Your task to perform on an android device: turn pop-ups on in chrome Image 0: 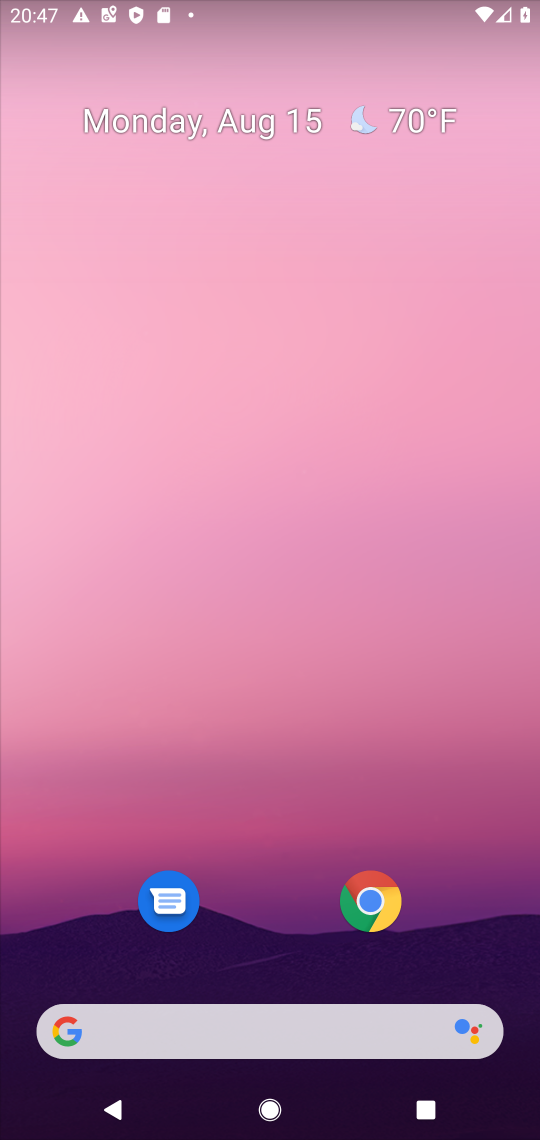
Step 0: drag from (295, 908) to (482, 78)
Your task to perform on an android device: turn pop-ups on in chrome Image 1: 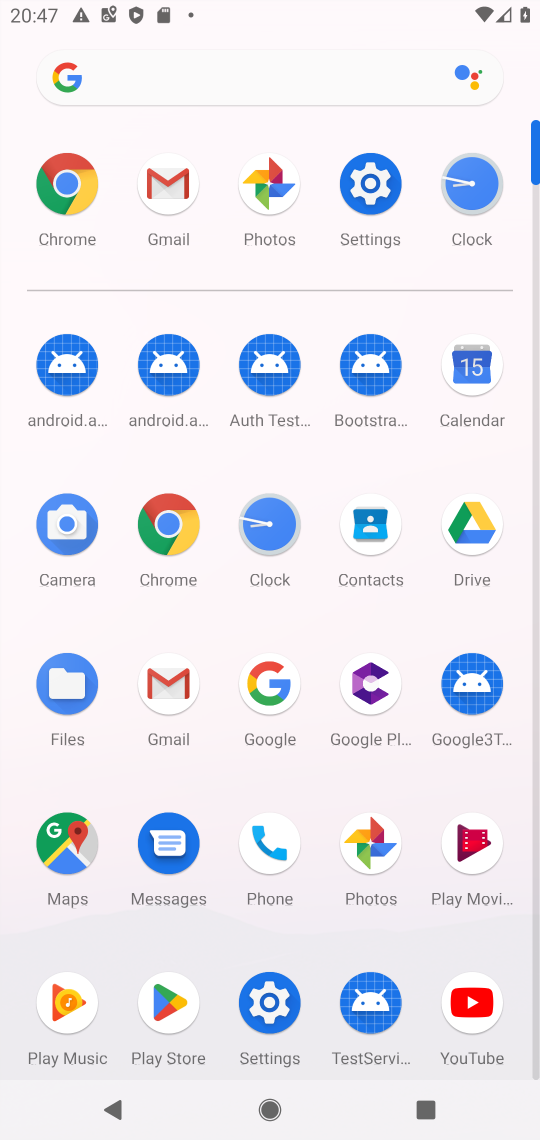
Step 1: click (173, 545)
Your task to perform on an android device: turn pop-ups on in chrome Image 2: 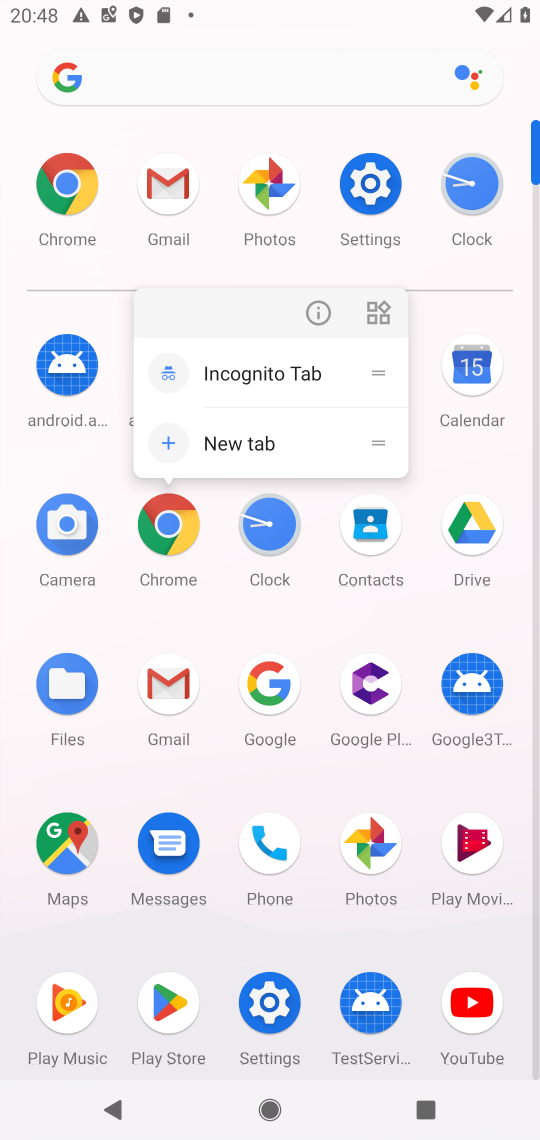
Step 2: click (162, 523)
Your task to perform on an android device: turn pop-ups on in chrome Image 3: 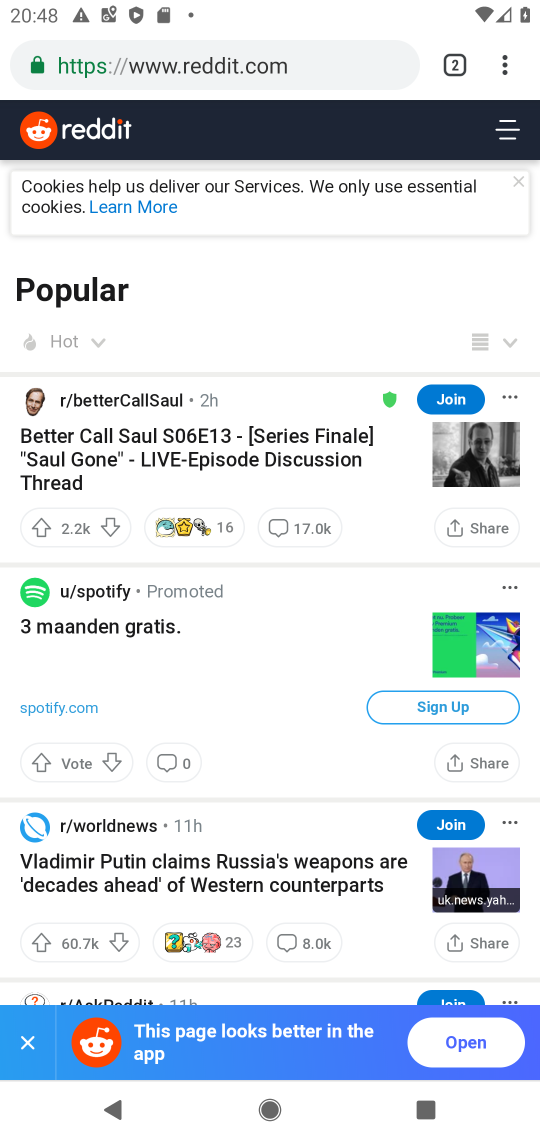
Step 3: click (507, 70)
Your task to perform on an android device: turn pop-ups on in chrome Image 4: 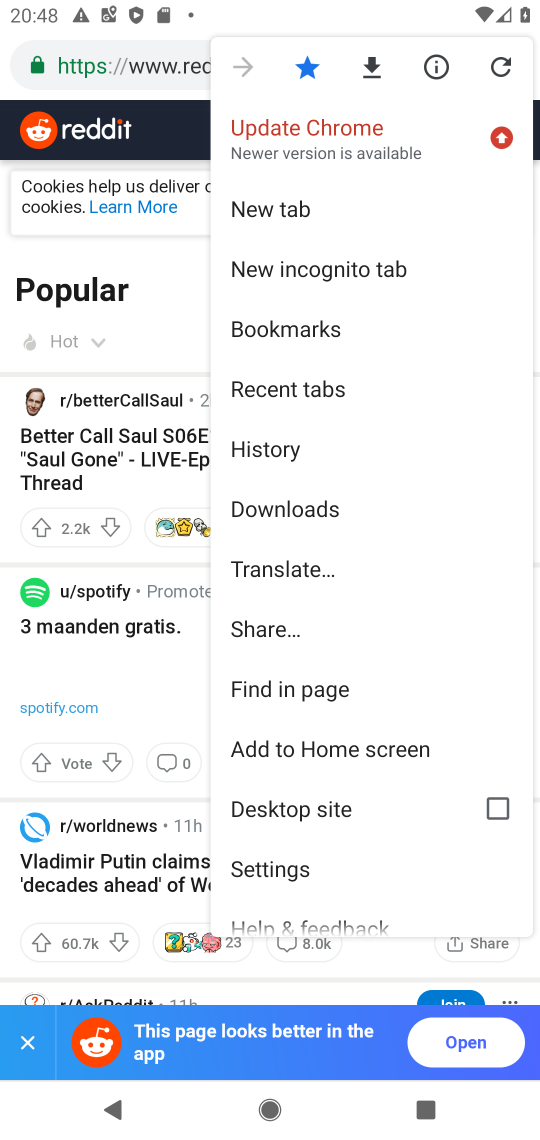
Step 4: click (290, 868)
Your task to perform on an android device: turn pop-ups on in chrome Image 5: 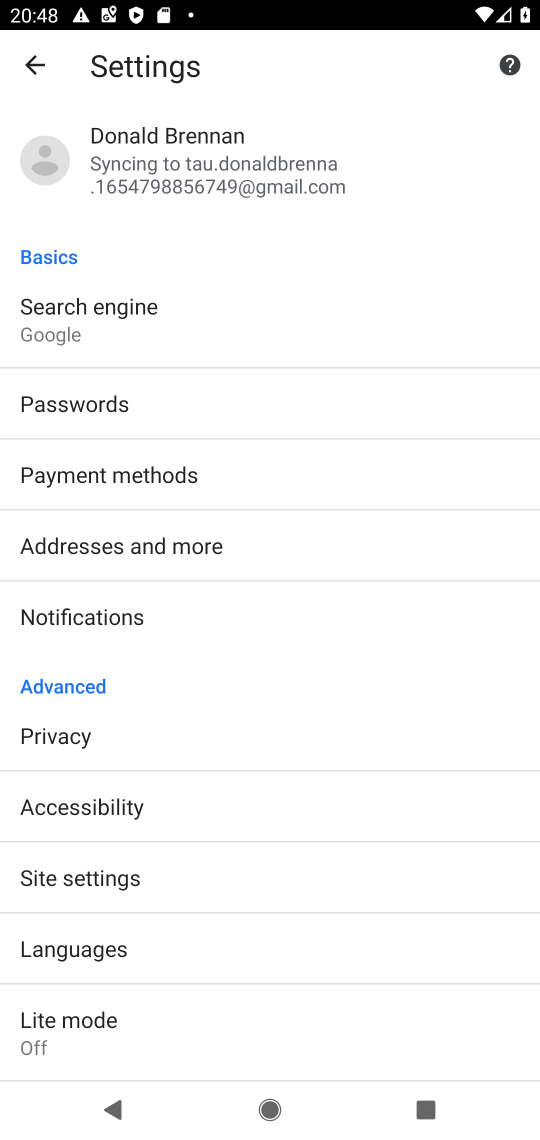
Step 5: click (117, 868)
Your task to perform on an android device: turn pop-ups on in chrome Image 6: 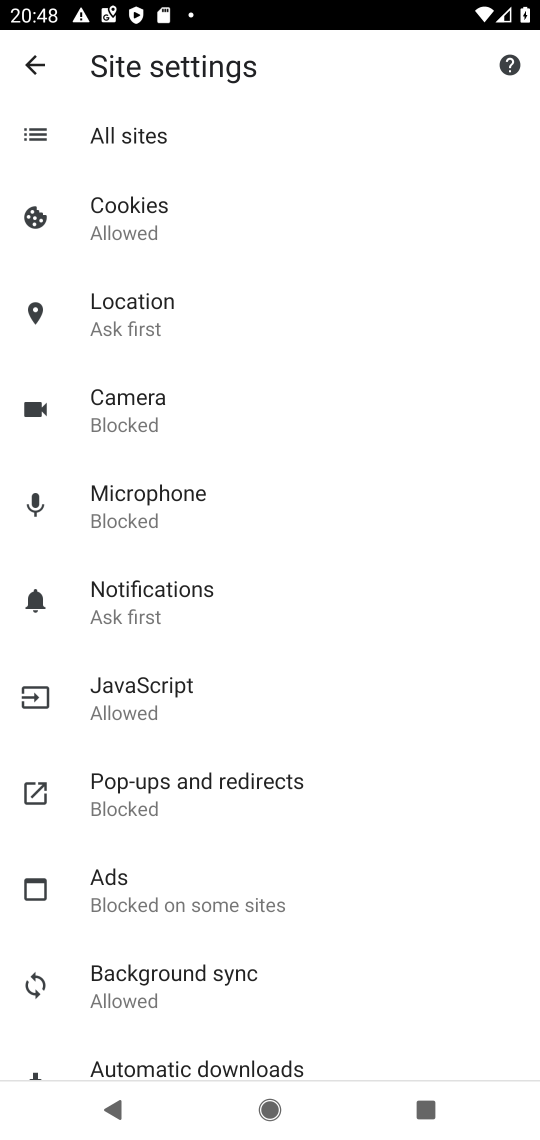
Step 6: click (166, 799)
Your task to perform on an android device: turn pop-ups on in chrome Image 7: 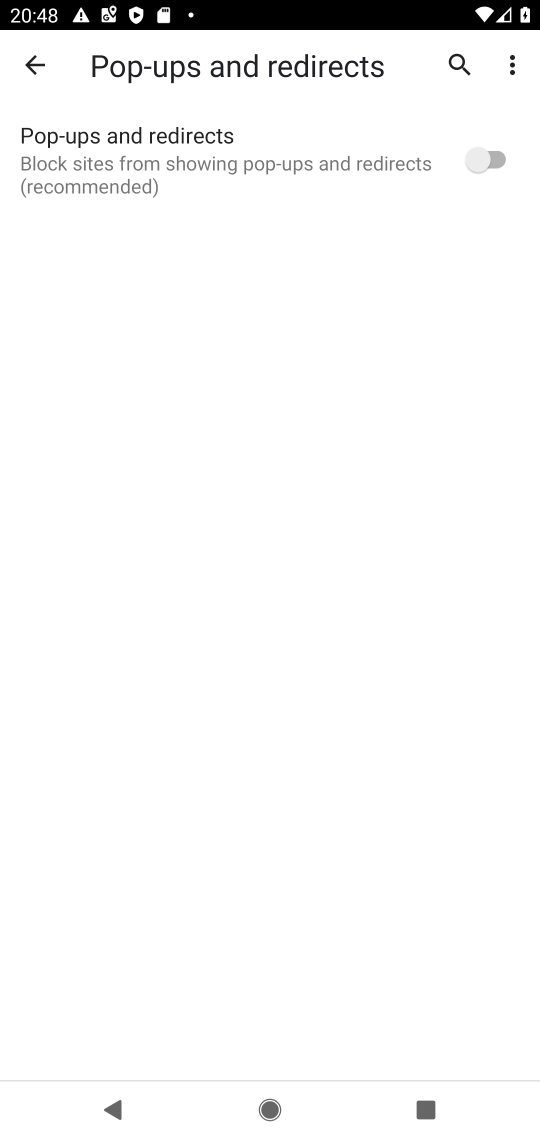
Step 7: click (509, 163)
Your task to perform on an android device: turn pop-ups on in chrome Image 8: 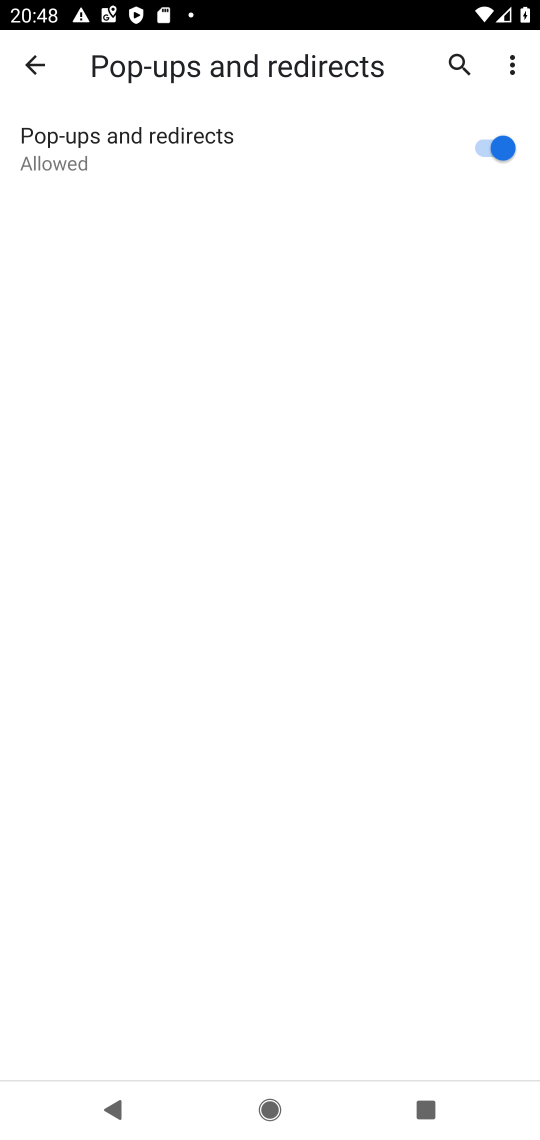
Step 8: task complete